Your task to perform on an android device: manage bookmarks in the chrome app Image 0: 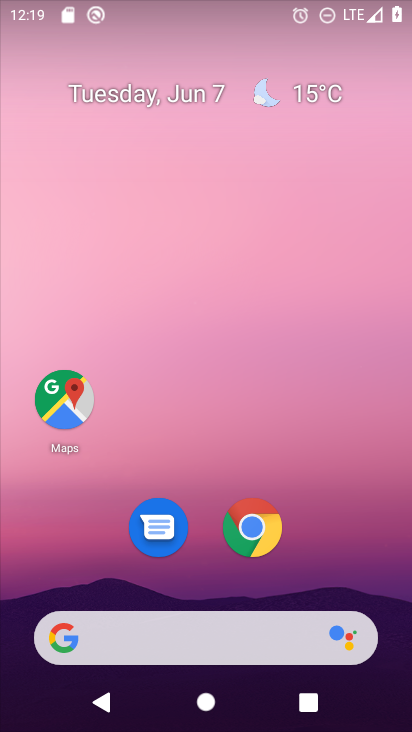
Step 0: drag from (328, 582) to (322, 121)
Your task to perform on an android device: manage bookmarks in the chrome app Image 1: 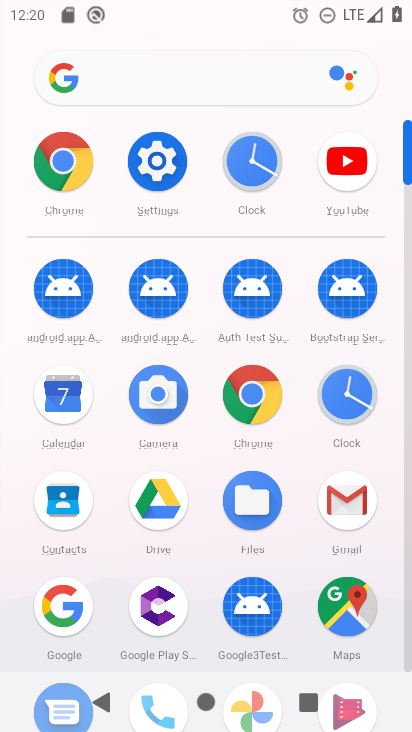
Step 1: click (258, 395)
Your task to perform on an android device: manage bookmarks in the chrome app Image 2: 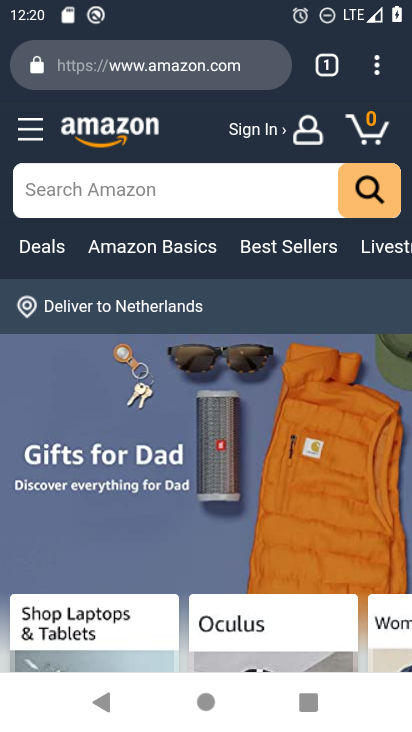
Step 2: click (382, 76)
Your task to perform on an android device: manage bookmarks in the chrome app Image 3: 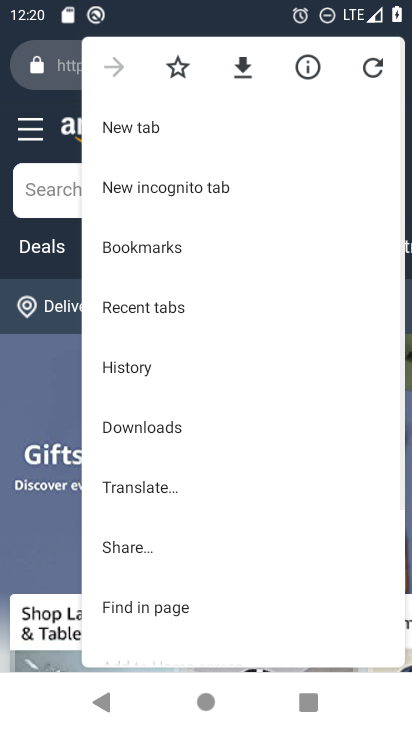
Step 3: drag from (317, 443) to (311, 311)
Your task to perform on an android device: manage bookmarks in the chrome app Image 4: 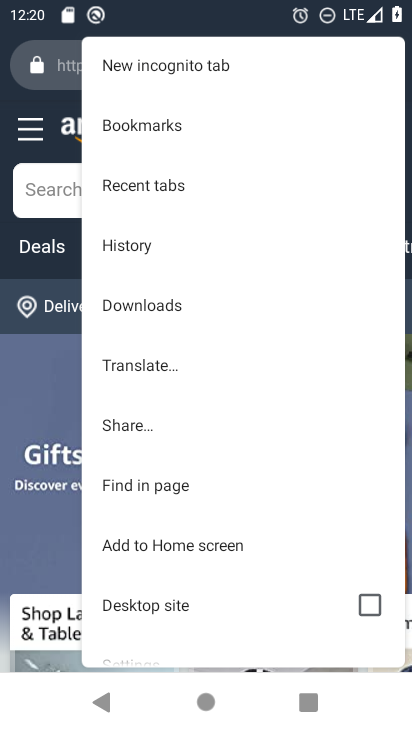
Step 4: drag from (258, 416) to (266, 281)
Your task to perform on an android device: manage bookmarks in the chrome app Image 5: 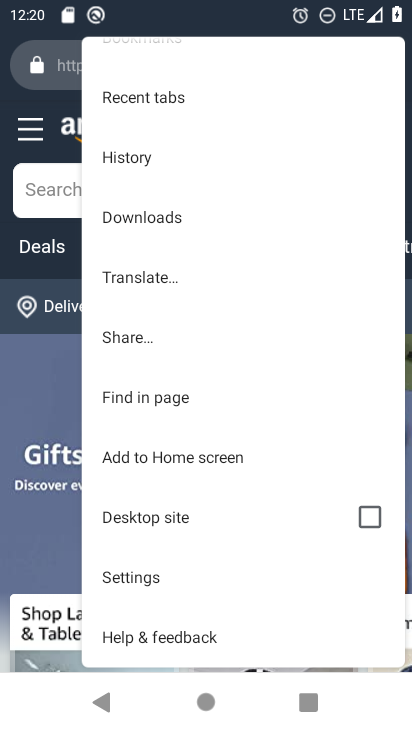
Step 5: drag from (282, 508) to (284, 320)
Your task to perform on an android device: manage bookmarks in the chrome app Image 6: 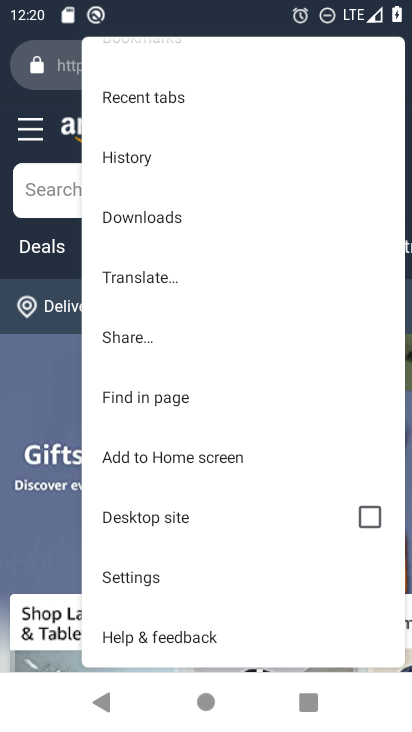
Step 6: drag from (265, 514) to (273, 256)
Your task to perform on an android device: manage bookmarks in the chrome app Image 7: 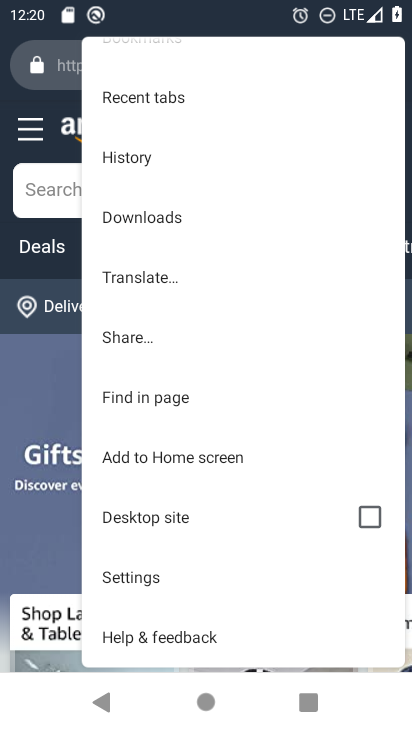
Step 7: drag from (292, 204) to (285, 448)
Your task to perform on an android device: manage bookmarks in the chrome app Image 8: 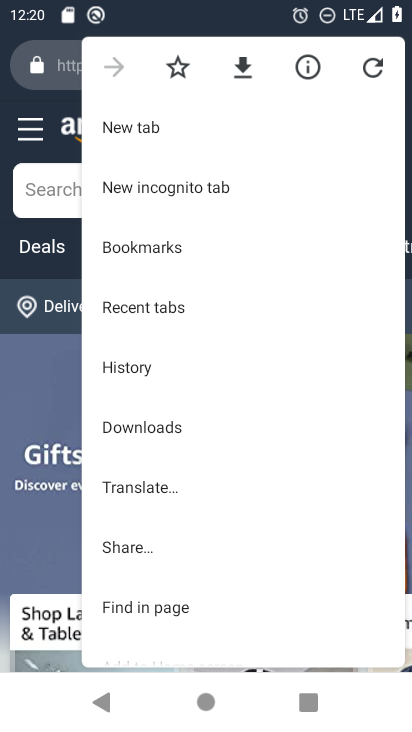
Step 8: drag from (271, 228) to (270, 421)
Your task to perform on an android device: manage bookmarks in the chrome app Image 9: 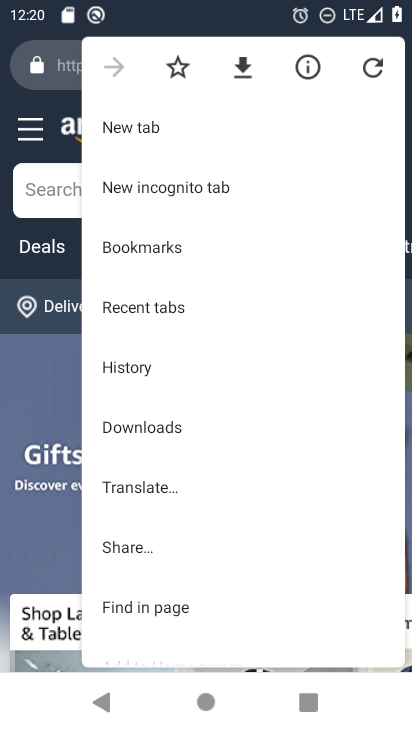
Step 9: click (187, 250)
Your task to perform on an android device: manage bookmarks in the chrome app Image 10: 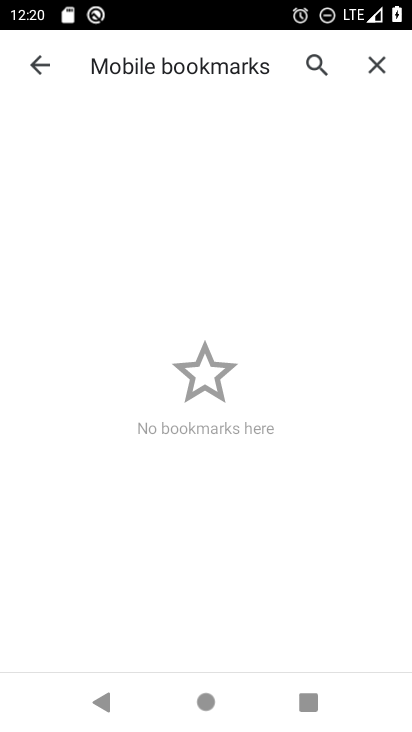
Step 10: task complete